Your task to perform on an android device: turn off airplane mode Image 0: 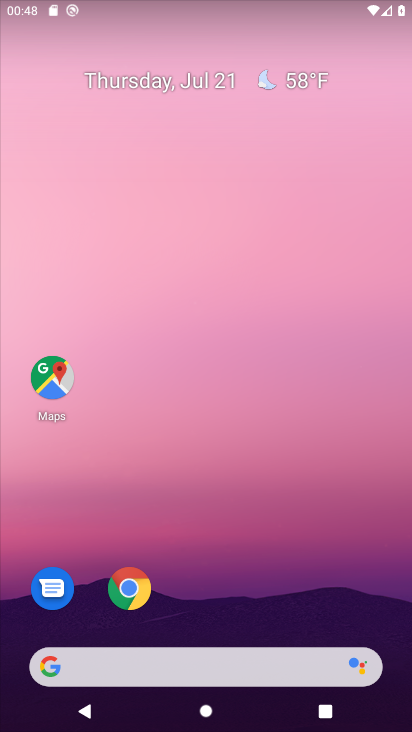
Step 0: drag from (217, 607) to (246, 153)
Your task to perform on an android device: turn off airplane mode Image 1: 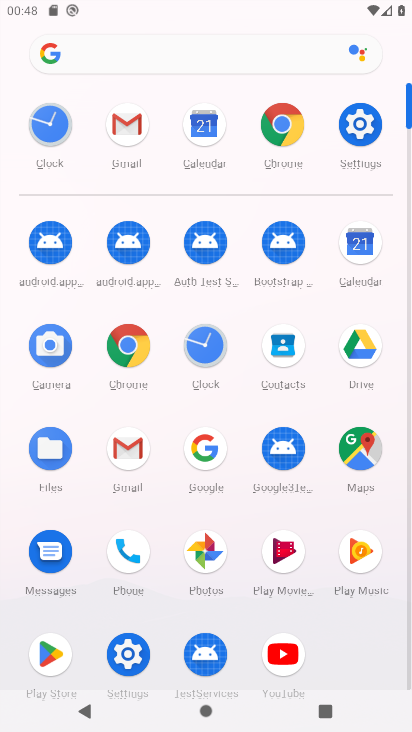
Step 1: click (364, 125)
Your task to perform on an android device: turn off airplane mode Image 2: 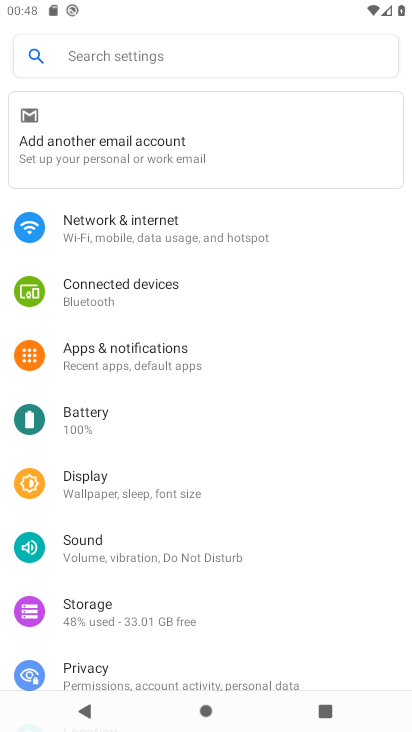
Step 2: click (154, 235)
Your task to perform on an android device: turn off airplane mode Image 3: 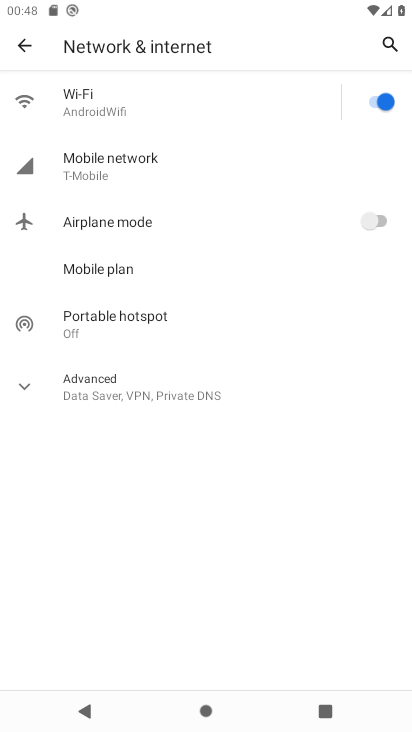
Step 3: task complete